Your task to perform on an android device: Open the map Image 0: 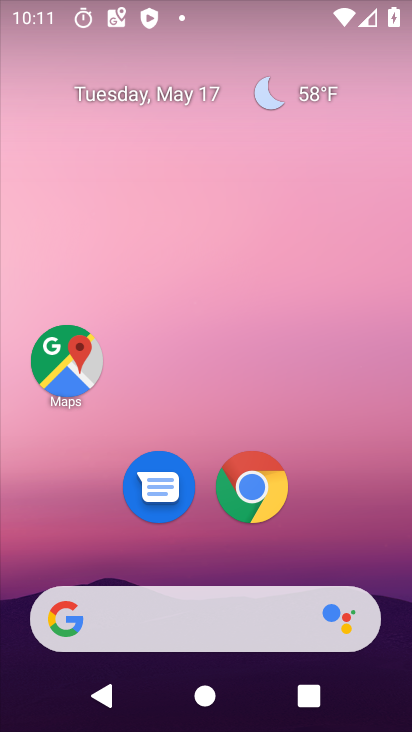
Step 0: drag from (227, 726) to (228, 49)
Your task to perform on an android device: Open the map Image 1: 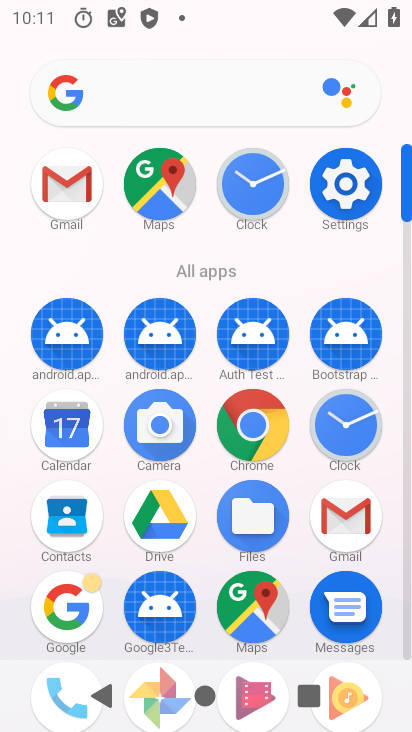
Step 1: click (256, 602)
Your task to perform on an android device: Open the map Image 2: 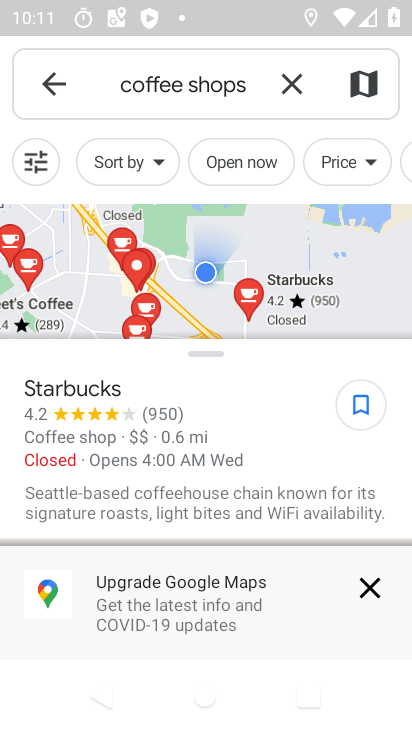
Step 2: task complete